Your task to perform on an android device: Go to battery settings Image 0: 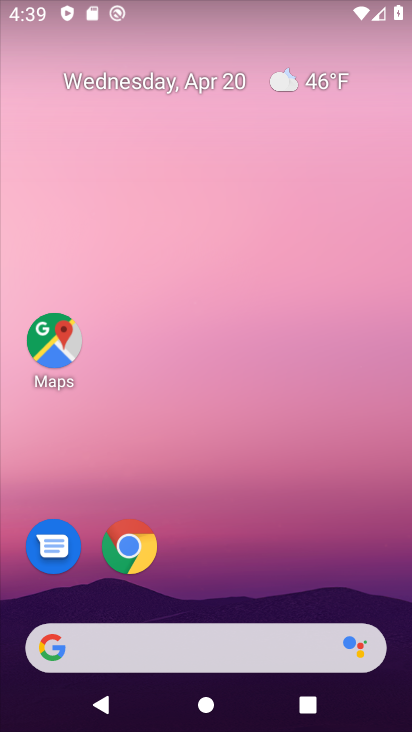
Step 0: click (379, 83)
Your task to perform on an android device: Go to battery settings Image 1: 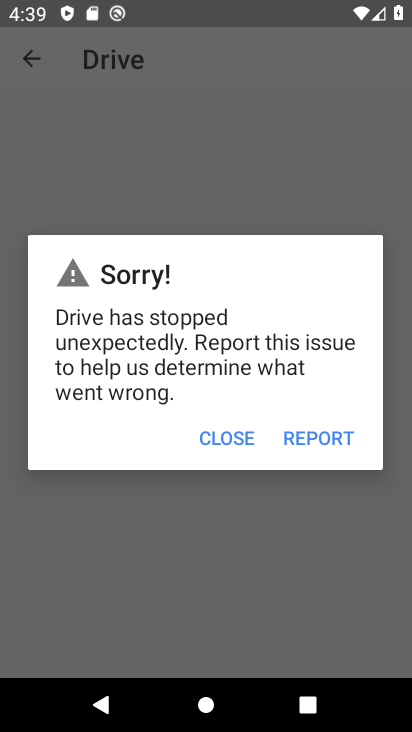
Step 1: press home button
Your task to perform on an android device: Go to battery settings Image 2: 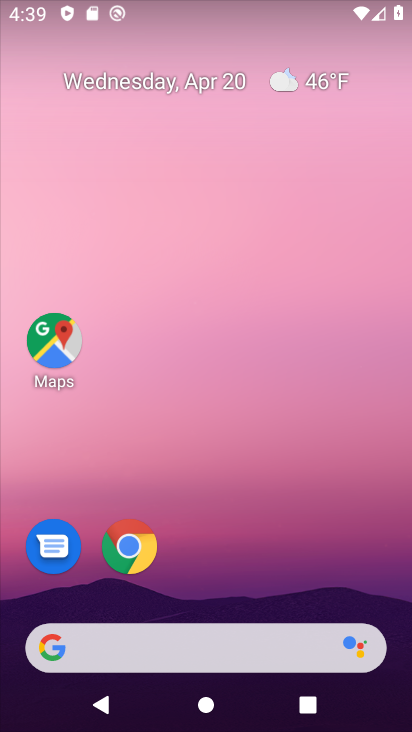
Step 2: drag from (293, 430) to (256, 61)
Your task to perform on an android device: Go to battery settings Image 3: 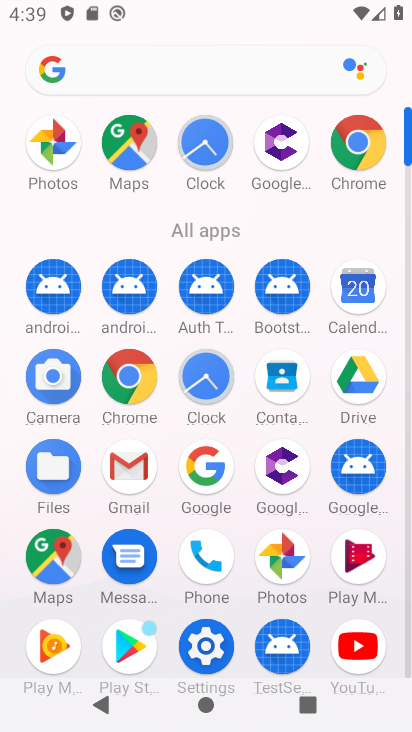
Step 3: click (199, 655)
Your task to perform on an android device: Go to battery settings Image 4: 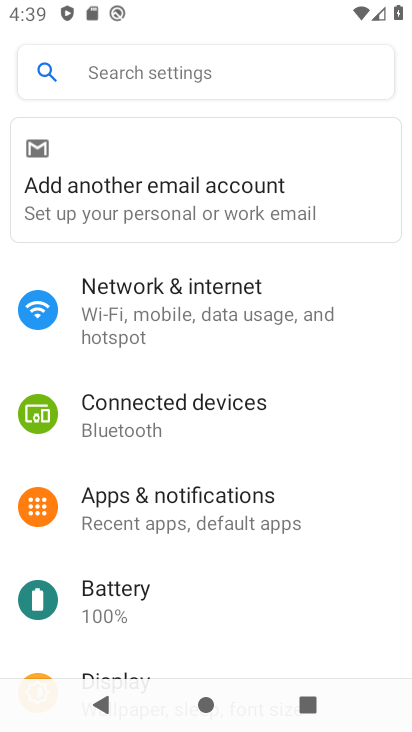
Step 4: click (153, 598)
Your task to perform on an android device: Go to battery settings Image 5: 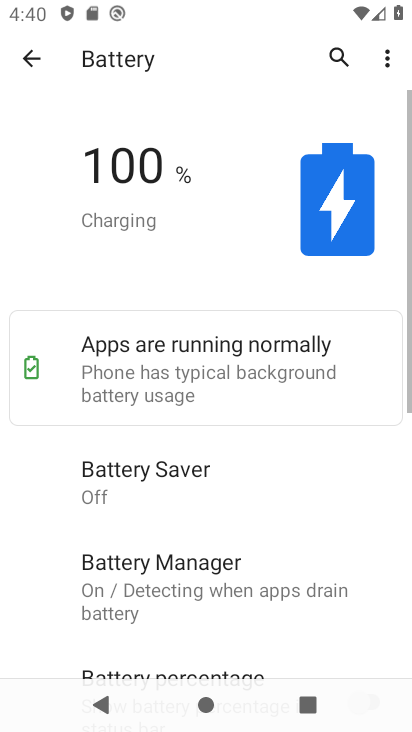
Step 5: task complete